Your task to perform on an android device: turn off notifications settings in the gmail app Image 0: 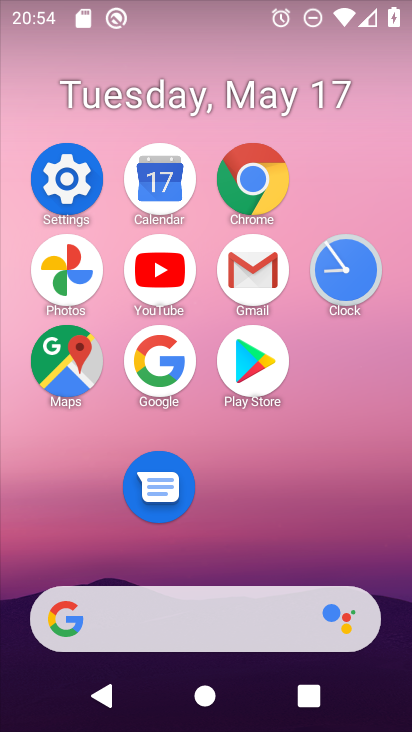
Step 0: click (246, 271)
Your task to perform on an android device: turn off notifications settings in the gmail app Image 1: 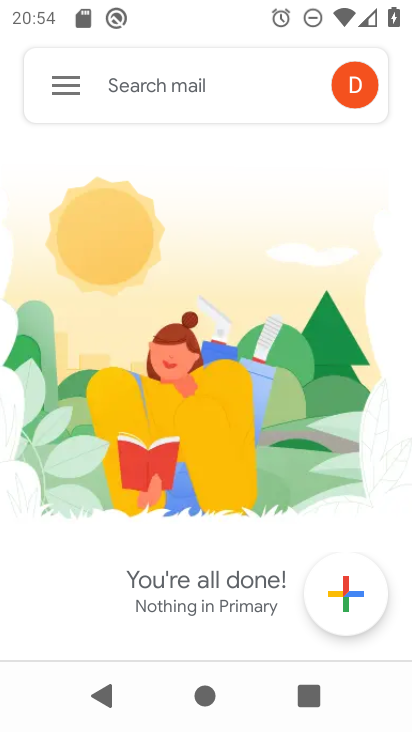
Step 1: click (72, 100)
Your task to perform on an android device: turn off notifications settings in the gmail app Image 2: 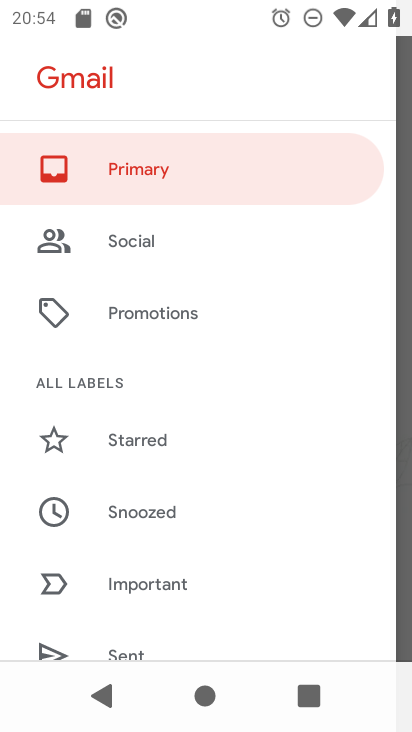
Step 2: drag from (277, 597) to (344, 250)
Your task to perform on an android device: turn off notifications settings in the gmail app Image 3: 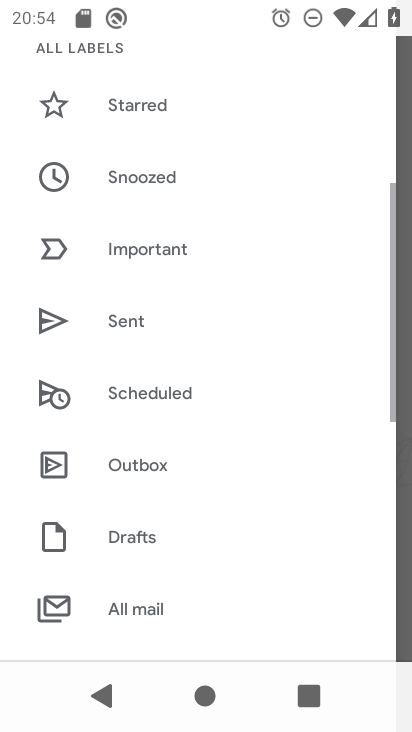
Step 3: drag from (217, 559) to (267, 212)
Your task to perform on an android device: turn off notifications settings in the gmail app Image 4: 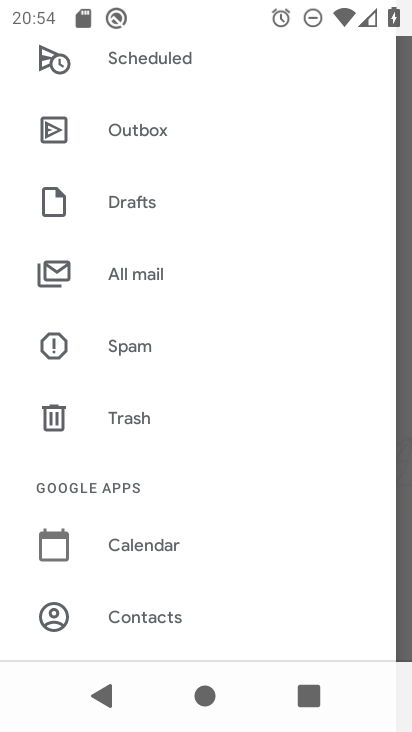
Step 4: drag from (201, 536) to (229, 242)
Your task to perform on an android device: turn off notifications settings in the gmail app Image 5: 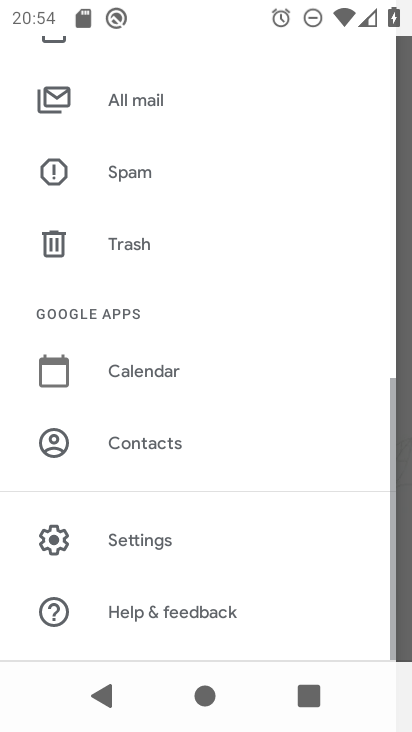
Step 5: click (186, 521)
Your task to perform on an android device: turn off notifications settings in the gmail app Image 6: 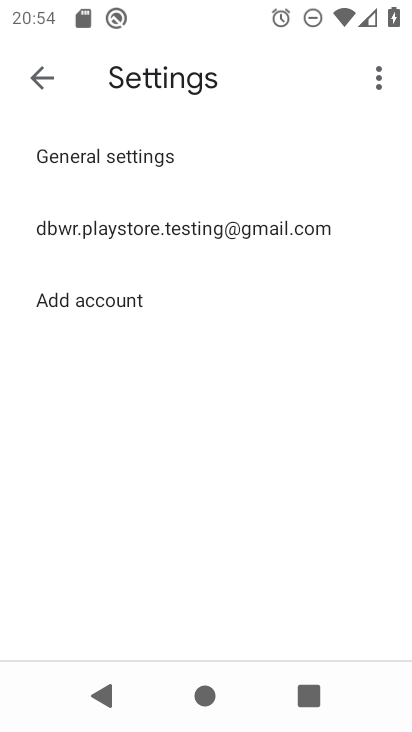
Step 6: click (219, 225)
Your task to perform on an android device: turn off notifications settings in the gmail app Image 7: 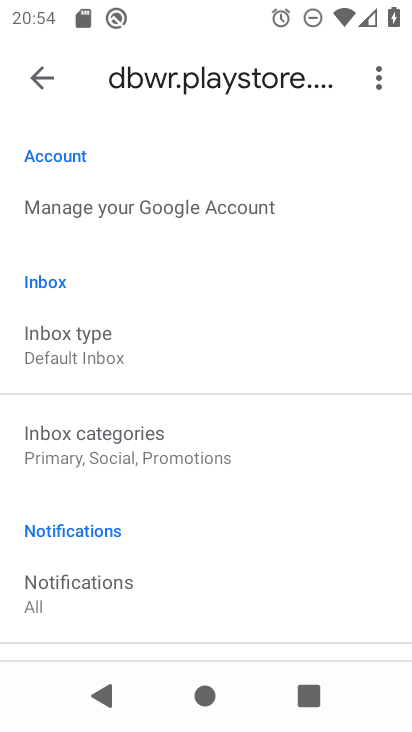
Step 7: click (118, 601)
Your task to perform on an android device: turn off notifications settings in the gmail app Image 8: 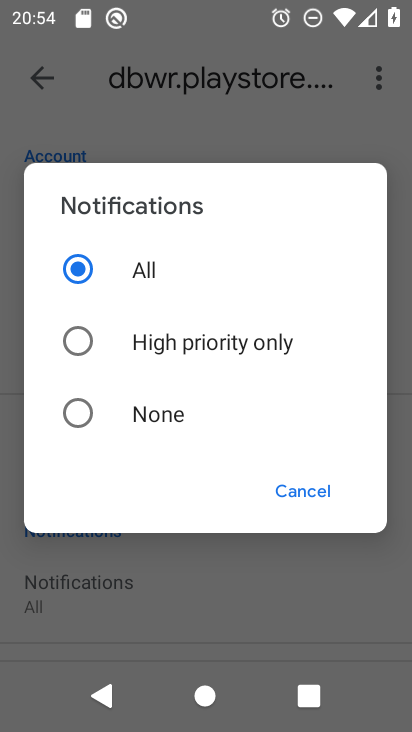
Step 8: click (105, 425)
Your task to perform on an android device: turn off notifications settings in the gmail app Image 9: 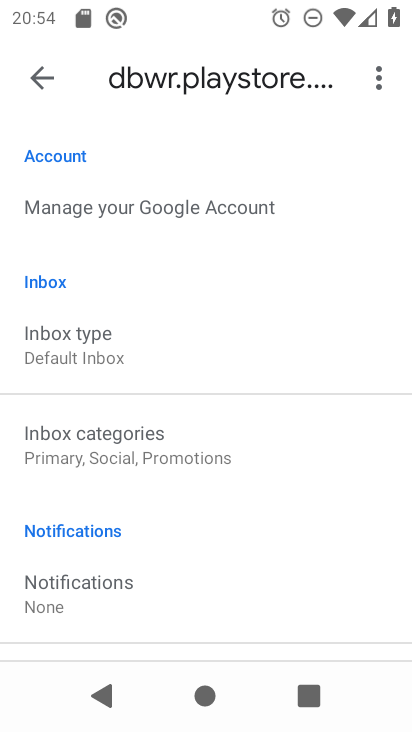
Step 9: task complete